Your task to perform on an android device: Do I have any events today? Image 0: 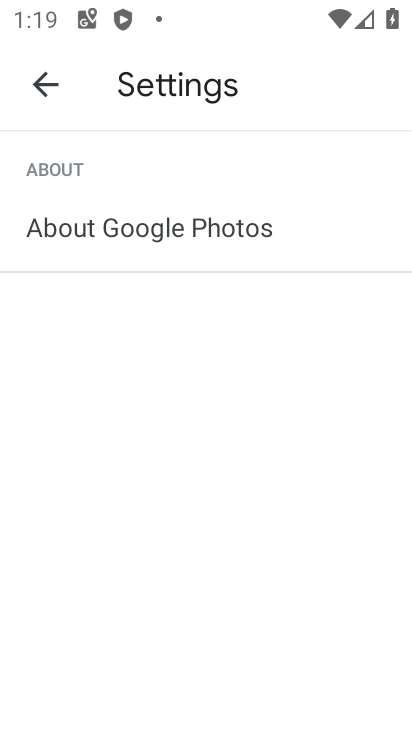
Step 0: press home button
Your task to perform on an android device: Do I have any events today? Image 1: 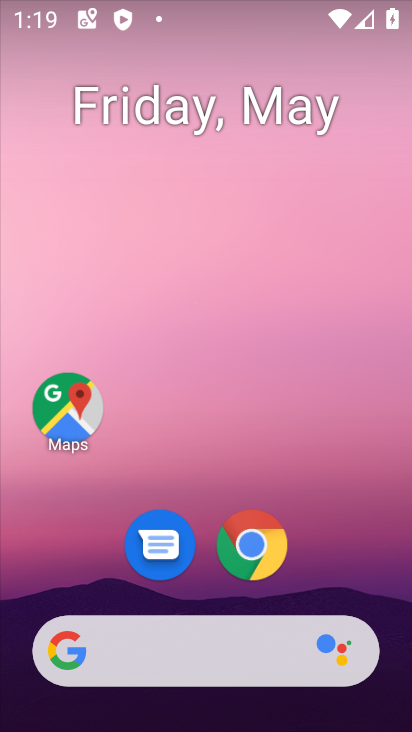
Step 1: drag from (348, 559) to (206, 12)
Your task to perform on an android device: Do I have any events today? Image 2: 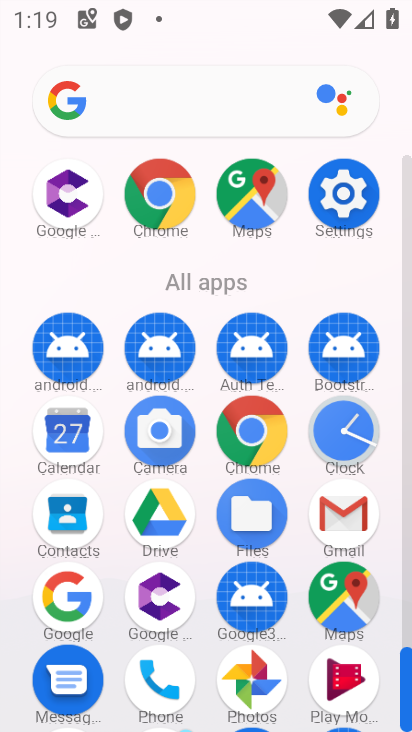
Step 2: click (81, 416)
Your task to perform on an android device: Do I have any events today? Image 3: 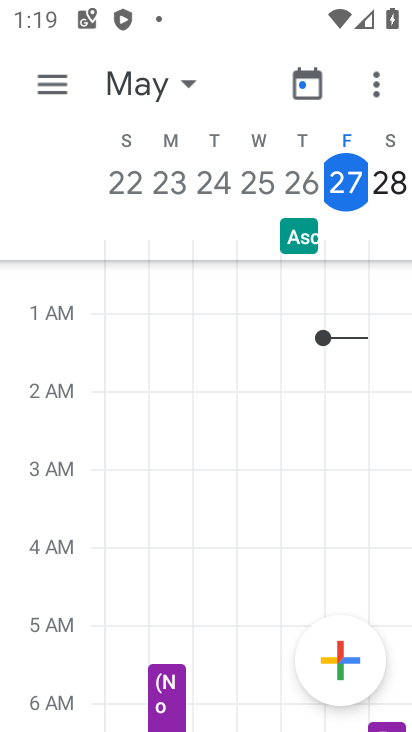
Step 3: task complete